Your task to perform on an android device: Go to Amazon Image 0: 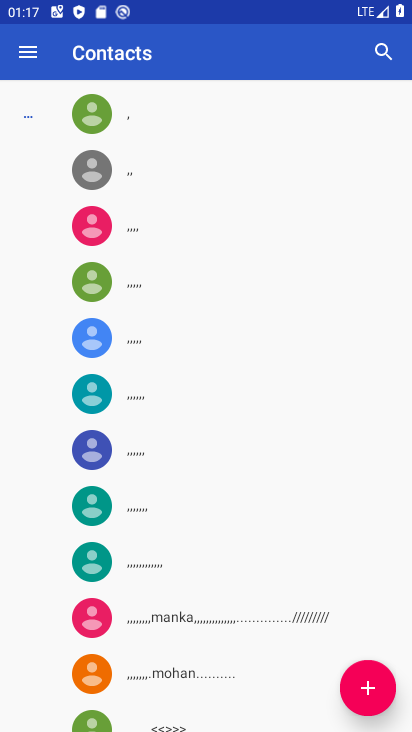
Step 0: press home button
Your task to perform on an android device: Go to Amazon Image 1: 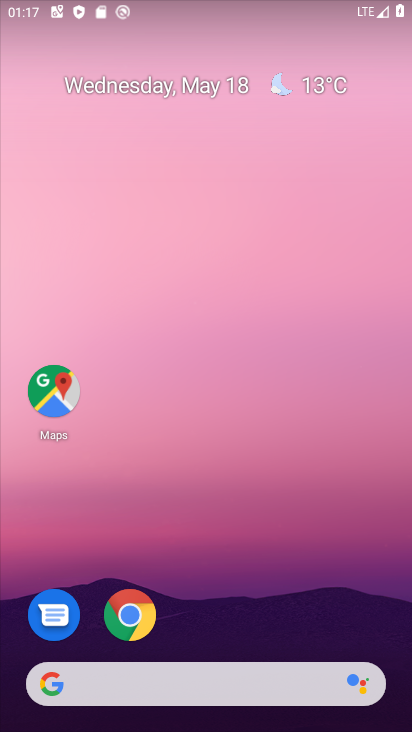
Step 1: click (131, 620)
Your task to perform on an android device: Go to Amazon Image 2: 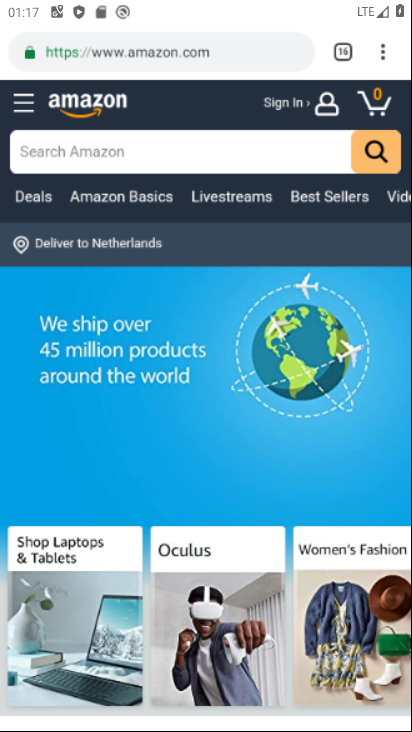
Step 2: click (380, 57)
Your task to perform on an android device: Go to Amazon Image 3: 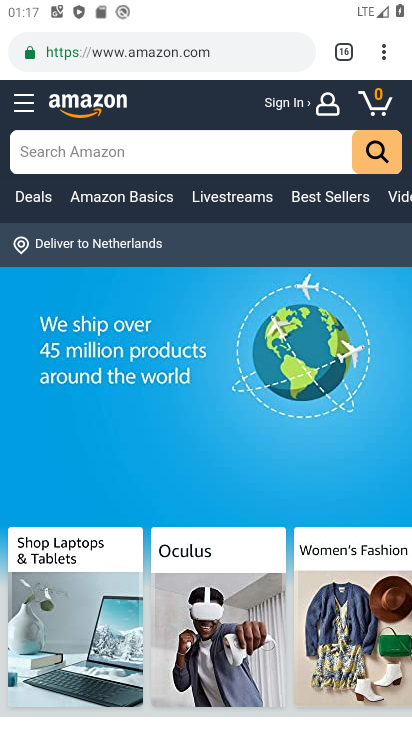
Step 3: task complete